Your task to perform on an android device: Clear the cart on amazon.com. Add "usb-c to usb-b" to the cart on amazon.com Image 0: 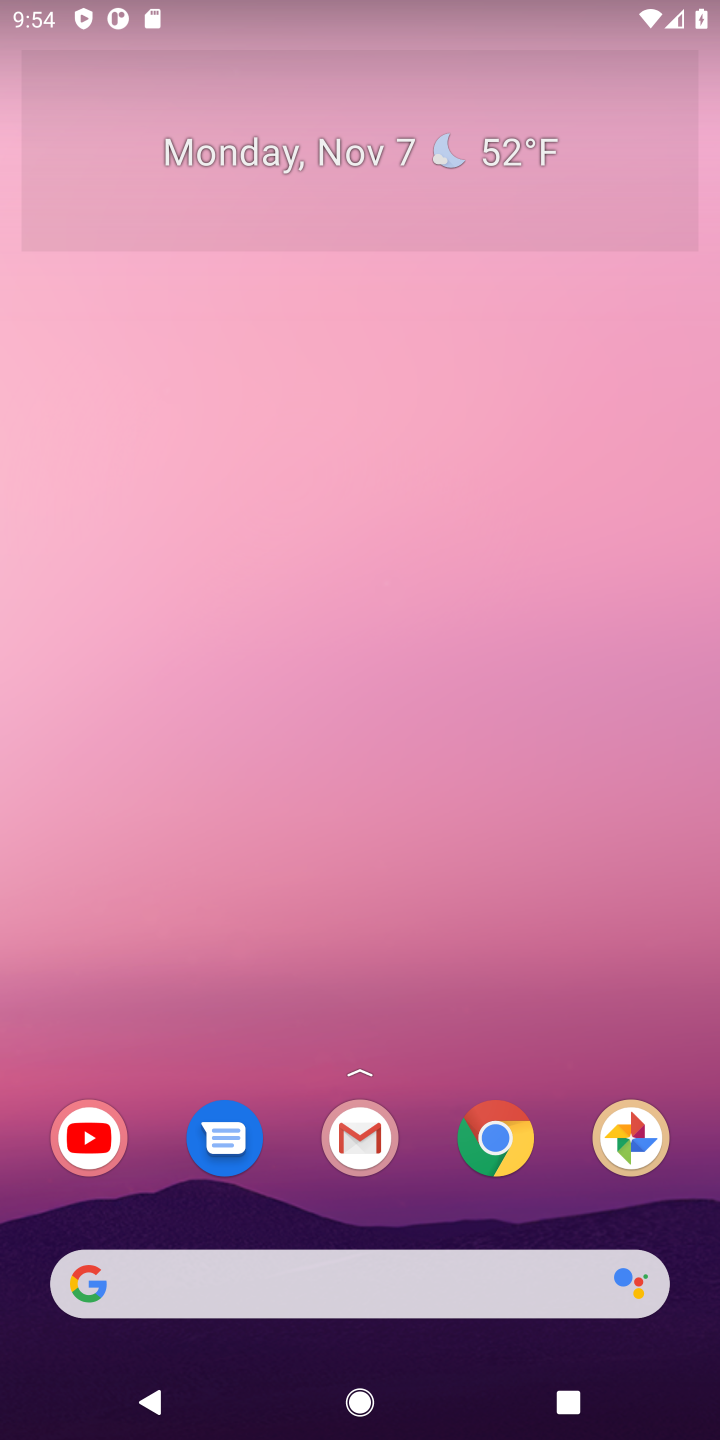
Step 0: drag from (318, 1214) to (318, 710)
Your task to perform on an android device: Clear the cart on amazon.com. Add "usb-c to usb-b" to the cart on amazon.com Image 1: 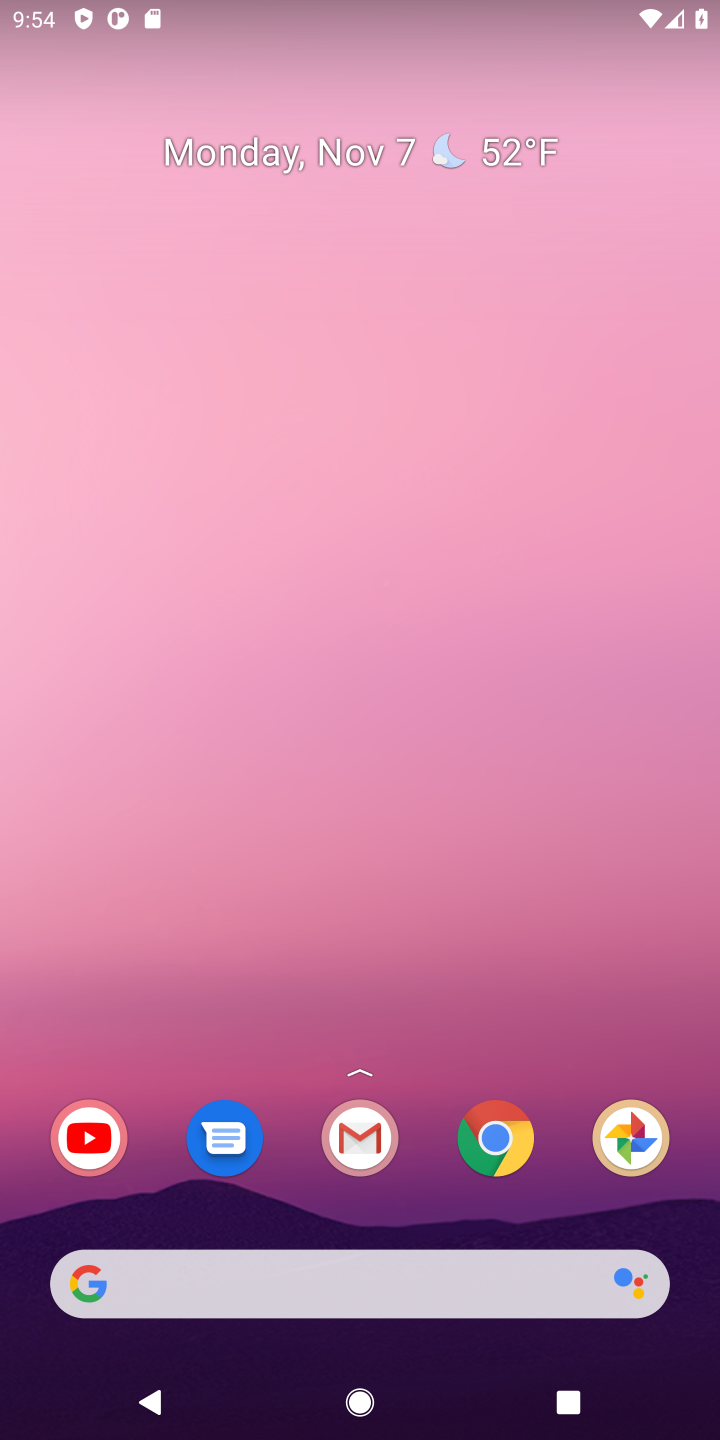
Step 1: drag from (414, 1162) to (404, 600)
Your task to perform on an android device: Clear the cart on amazon.com. Add "usb-c to usb-b" to the cart on amazon.com Image 2: 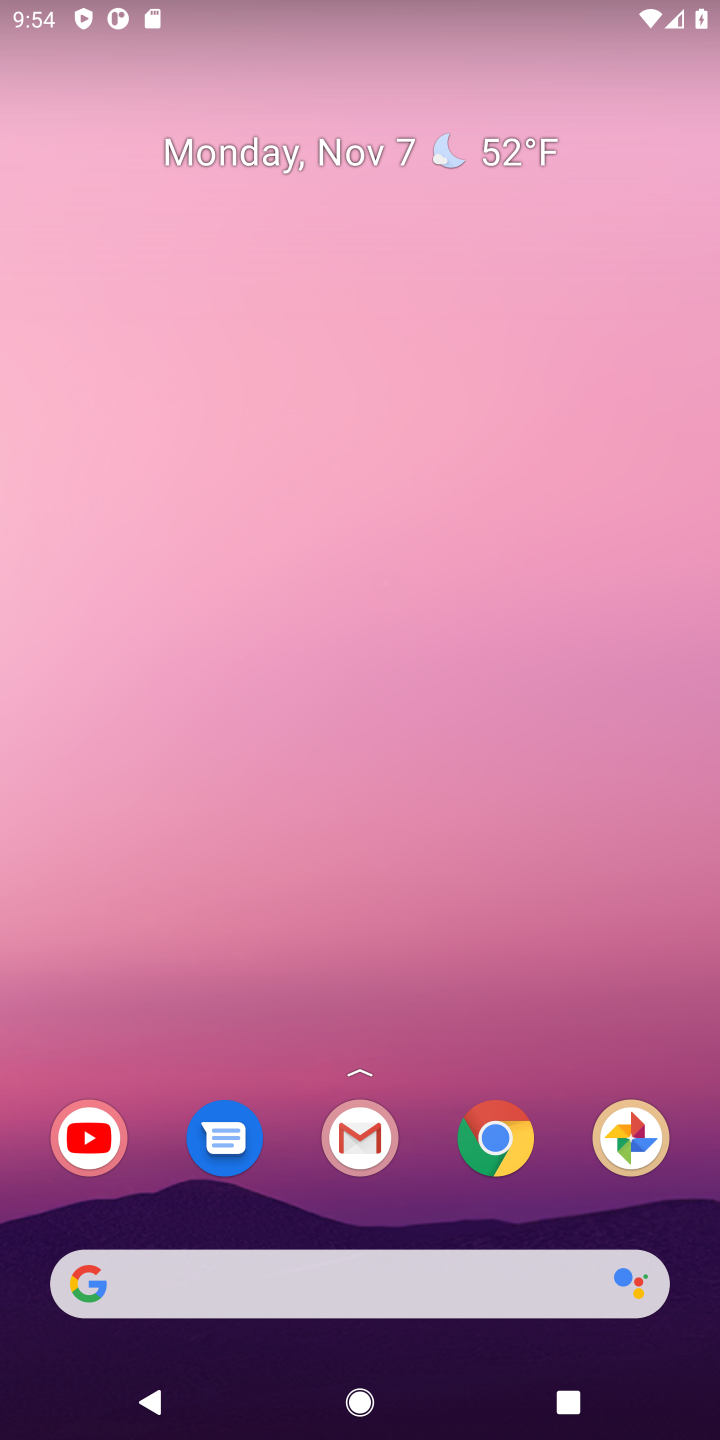
Step 2: drag from (368, 1200) to (517, 244)
Your task to perform on an android device: Clear the cart on amazon.com. Add "usb-c to usb-b" to the cart on amazon.com Image 3: 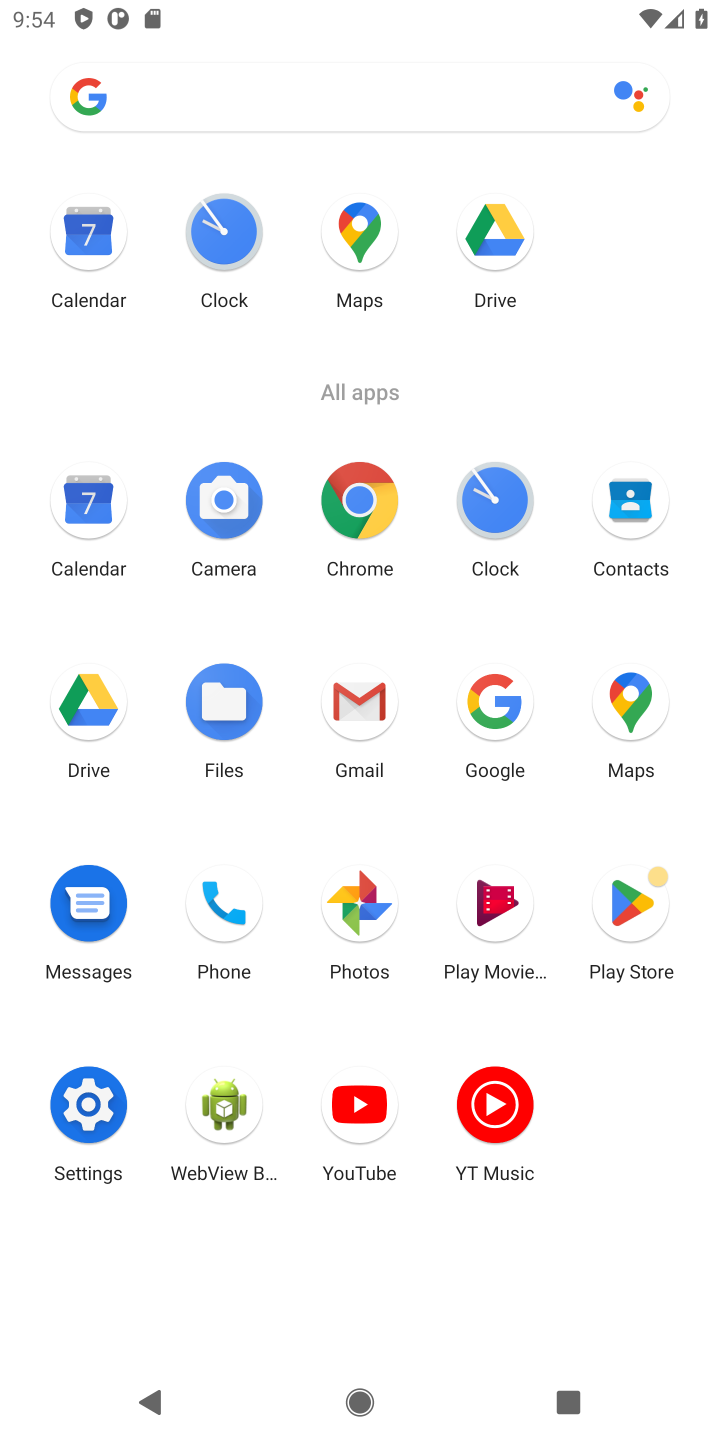
Step 3: click (500, 696)
Your task to perform on an android device: Clear the cart on amazon.com. Add "usb-c to usb-b" to the cart on amazon.com Image 4: 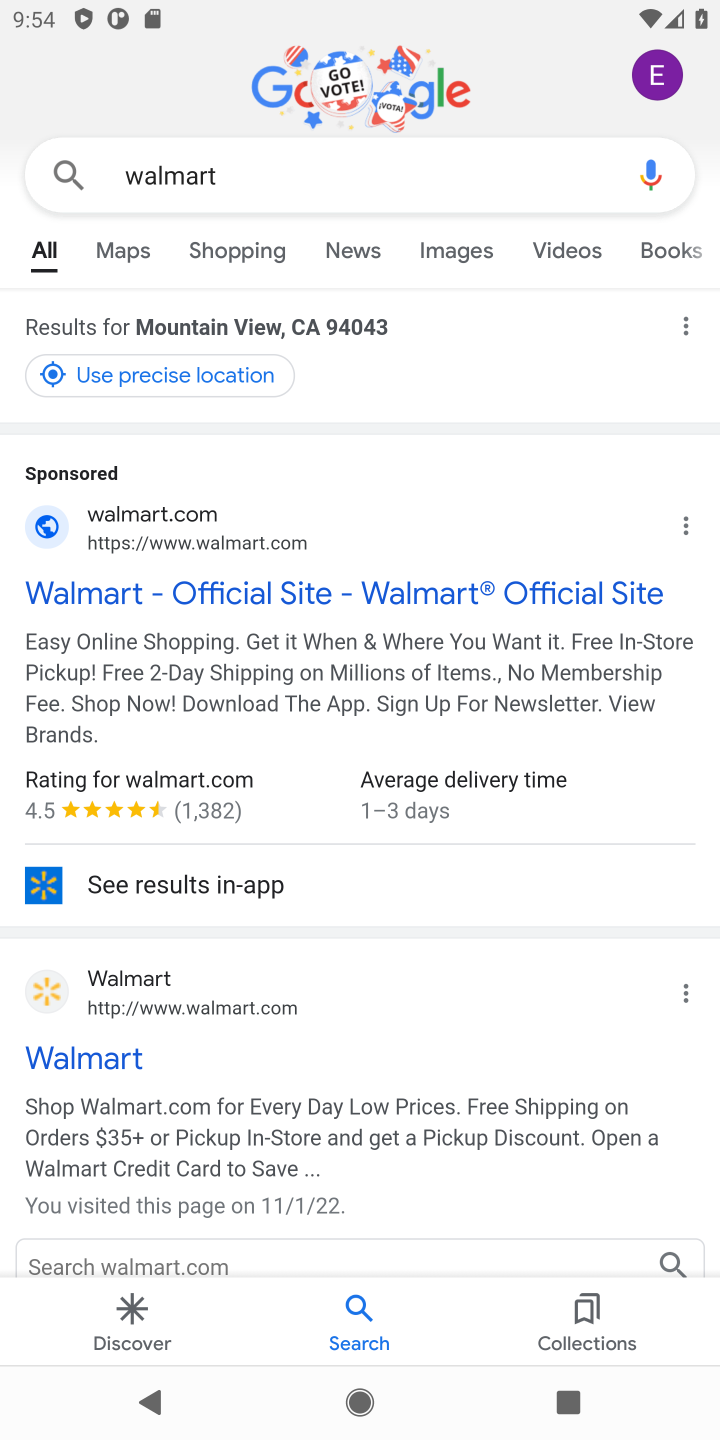
Step 4: click (428, 172)
Your task to perform on an android device: Clear the cart on amazon.com. Add "usb-c to usb-b" to the cart on amazon.com Image 5: 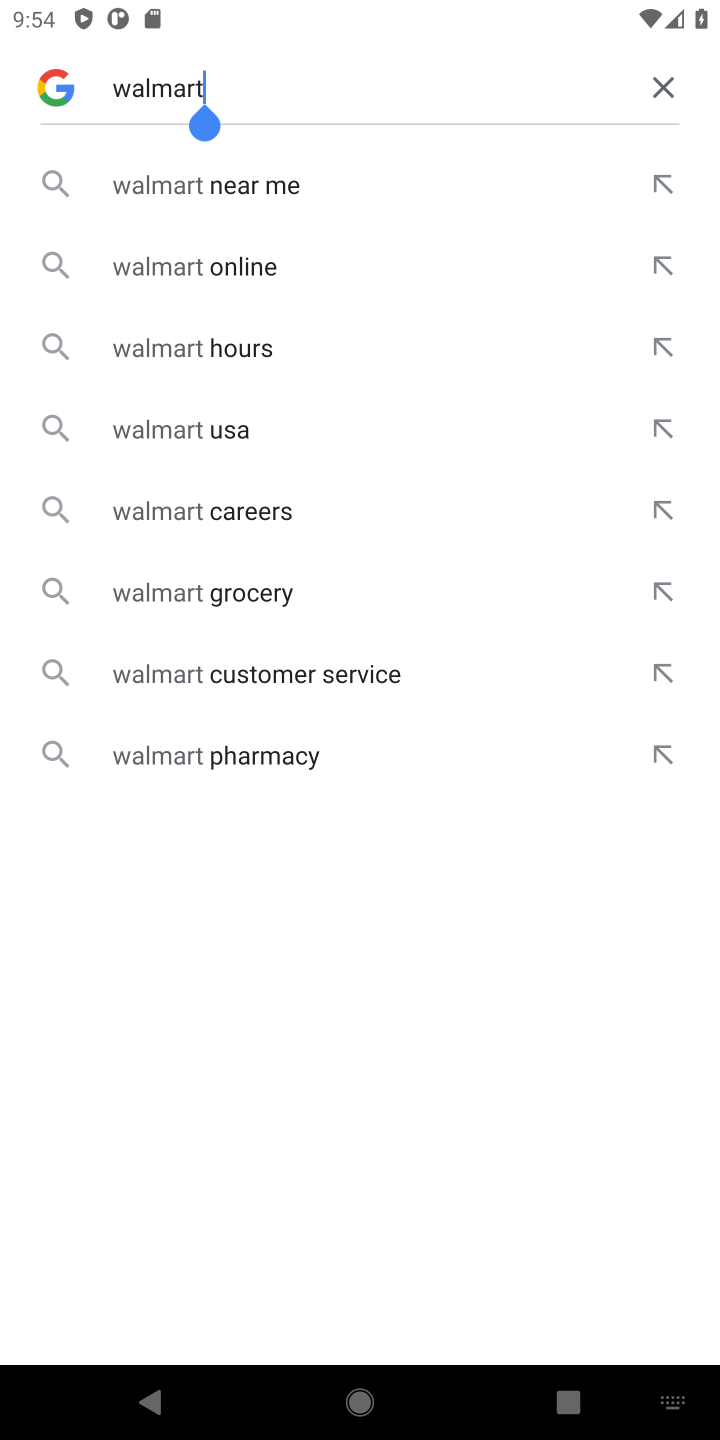
Step 5: click (676, 90)
Your task to perform on an android device: Clear the cart on amazon.com. Add "usb-c to usb-b" to the cart on amazon.com Image 6: 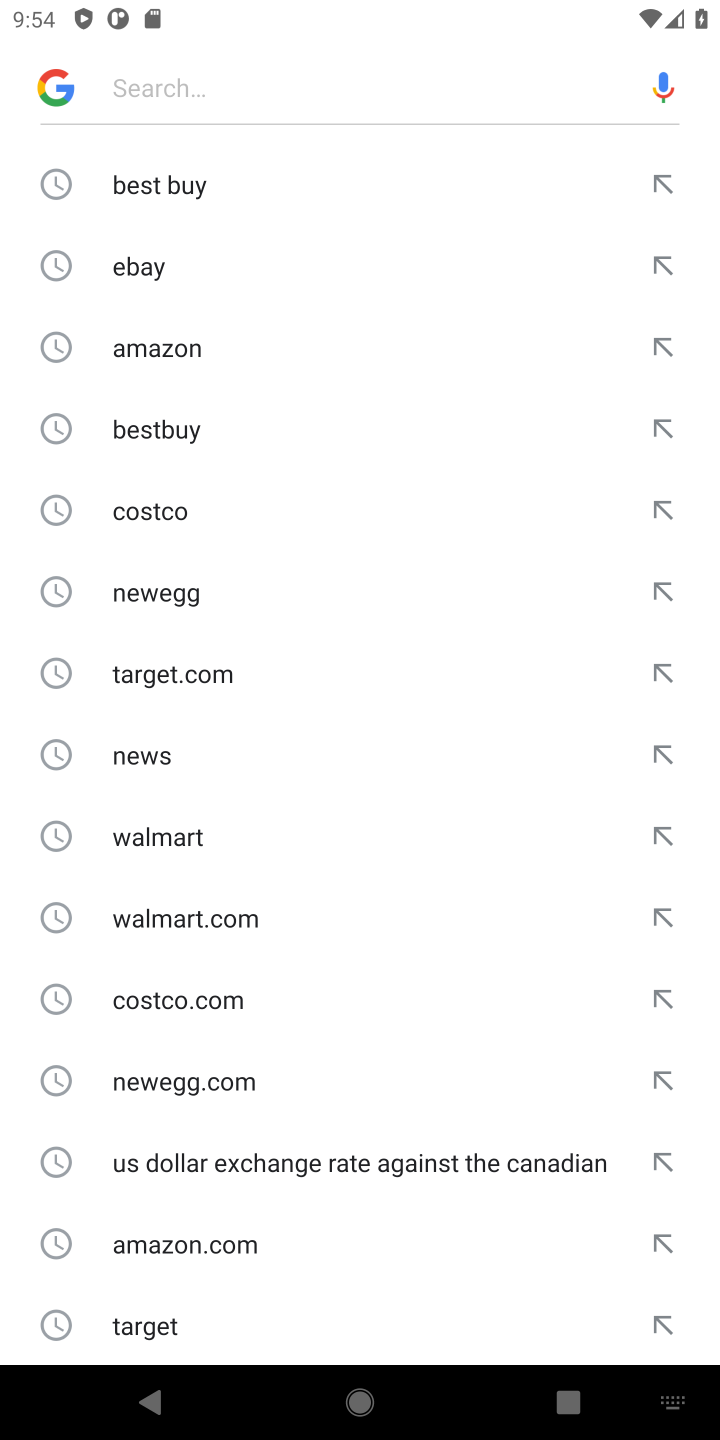
Step 6: type "amazon.com"
Your task to perform on an android device: Clear the cart on amazon.com. Add "usb-c to usb-b" to the cart on amazon.com Image 7: 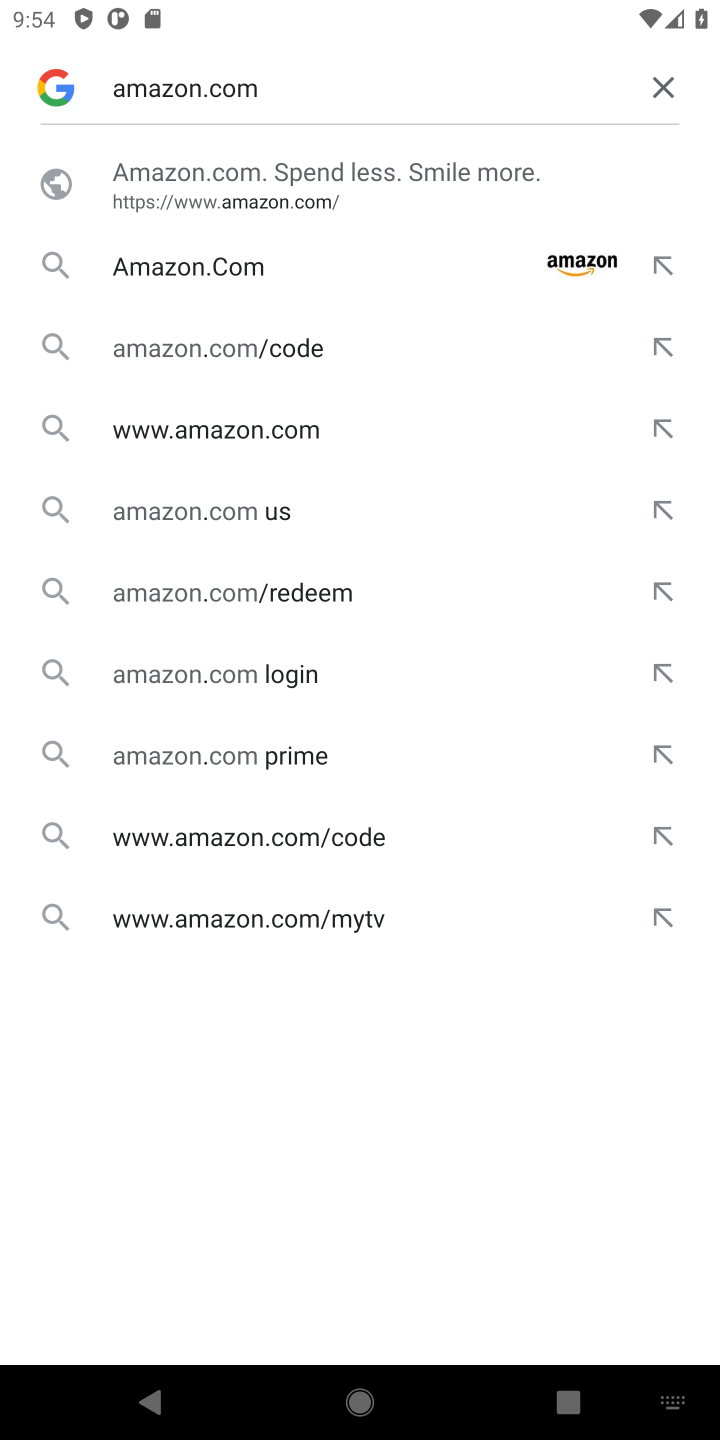
Step 7: click (378, 192)
Your task to perform on an android device: Clear the cart on amazon.com. Add "usb-c to usb-b" to the cart on amazon.com Image 8: 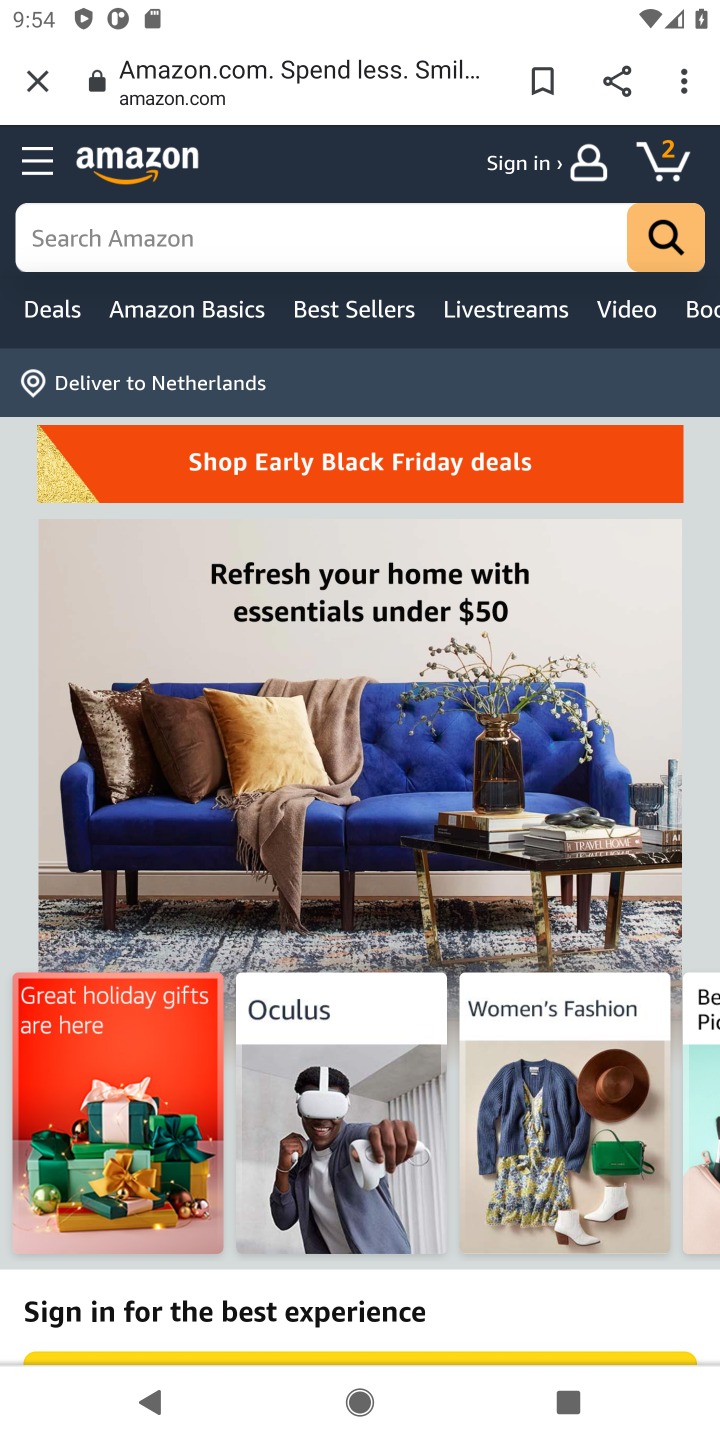
Step 8: click (390, 245)
Your task to perform on an android device: Clear the cart on amazon.com. Add "usb-c to usb-b" to the cart on amazon.com Image 9: 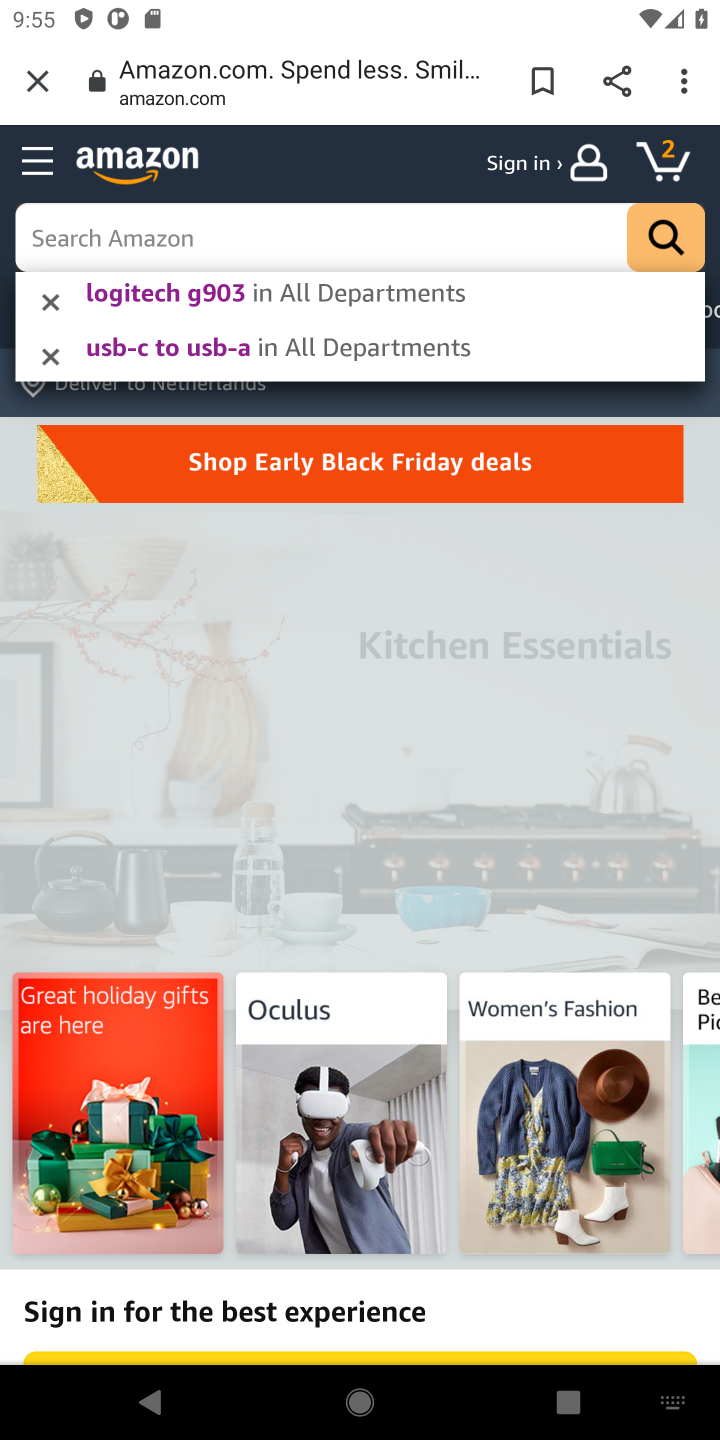
Step 9: type "usb-c to usb-b"
Your task to perform on an android device: Clear the cart on amazon.com. Add "usb-c to usb-b" to the cart on amazon.com Image 10: 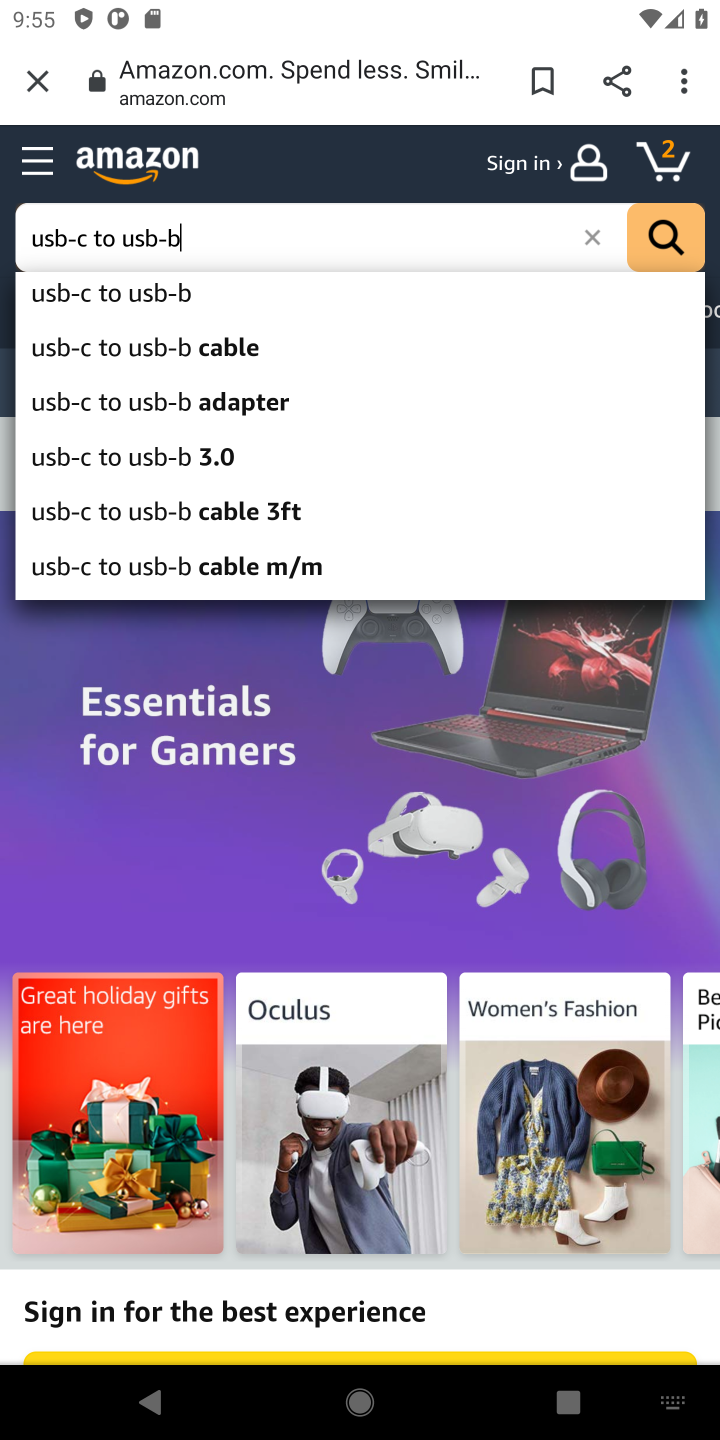
Step 10: click (200, 305)
Your task to perform on an android device: Clear the cart on amazon.com. Add "usb-c to usb-b" to the cart on amazon.com Image 11: 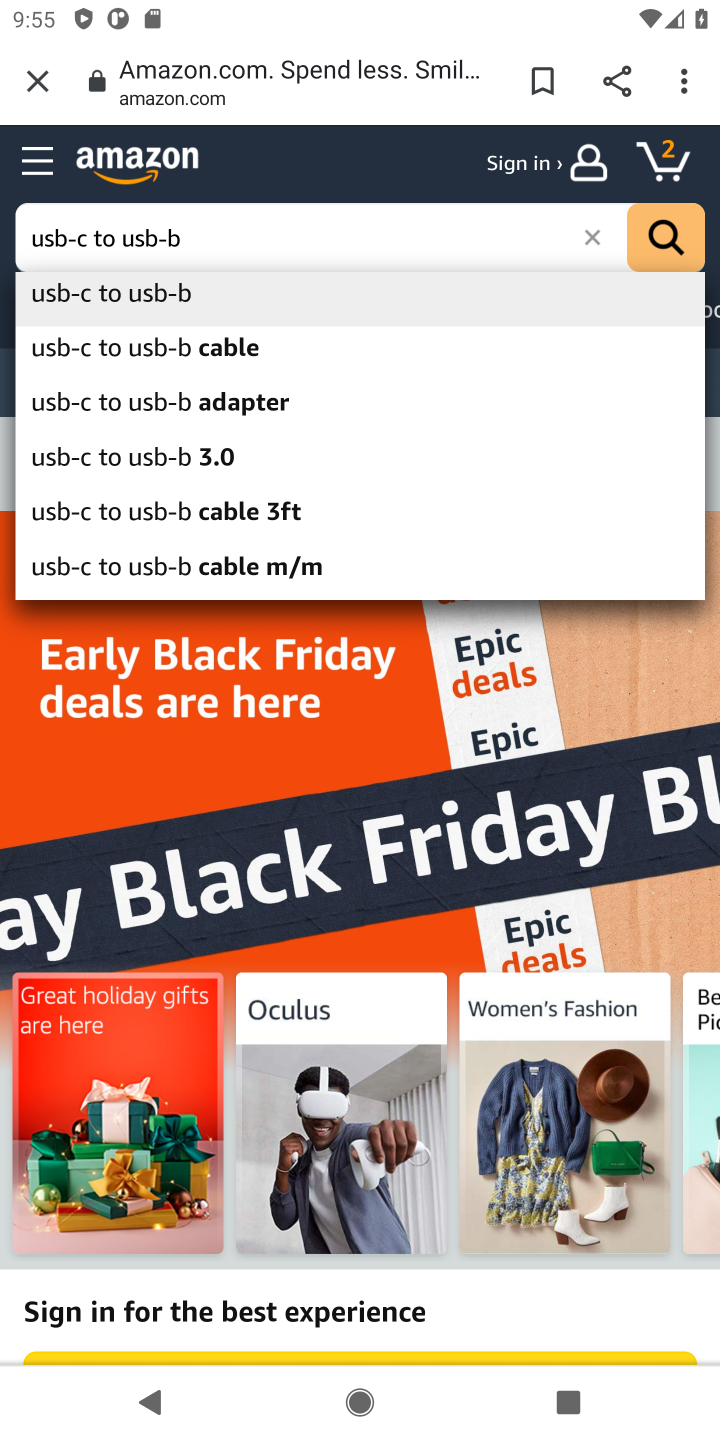
Step 11: click (200, 305)
Your task to perform on an android device: Clear the cart on amazon.com. Add "usb-c to usb-b" to the cart on amazon.com Image 12: 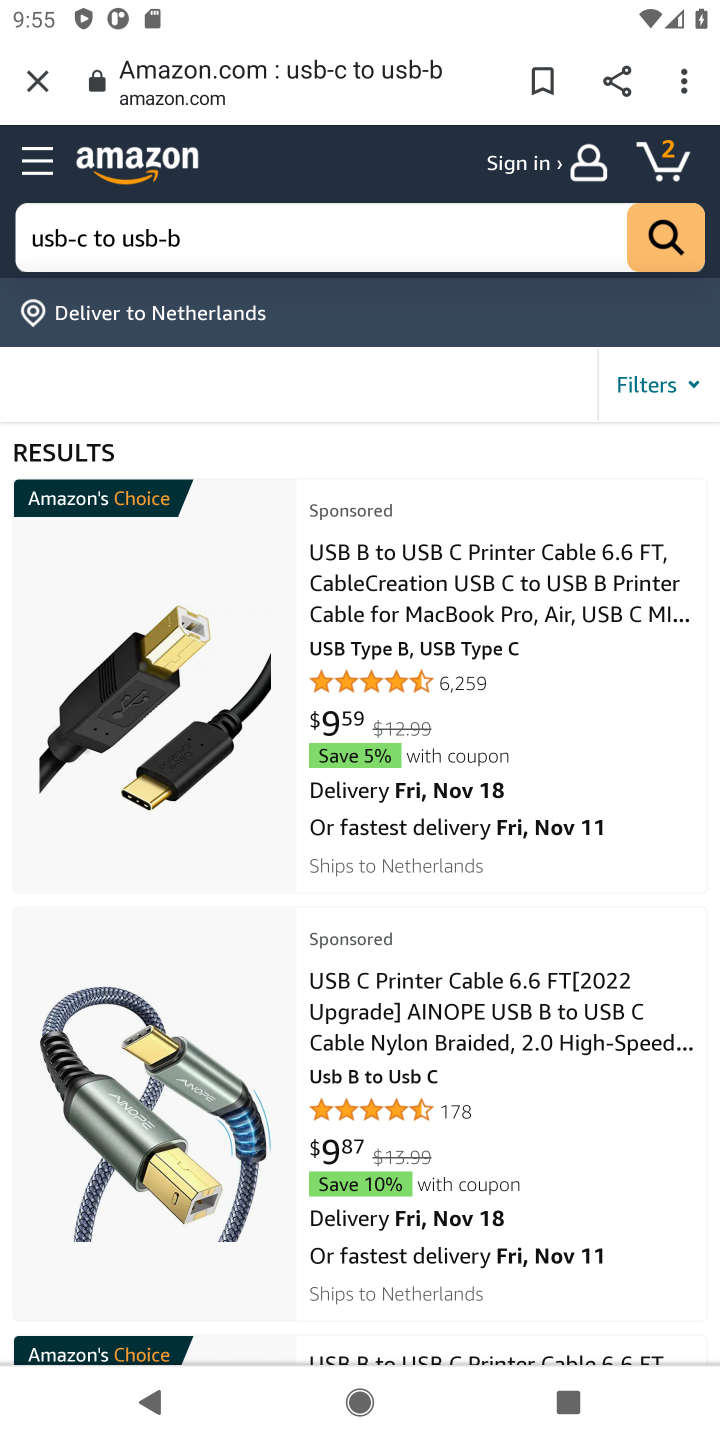
Step 12: click (500, 597)
Your task to perform on an android device: Clear the cart on amazon.com. Add "usb-c to usb-b" to the cart on amazon.com Image 13: 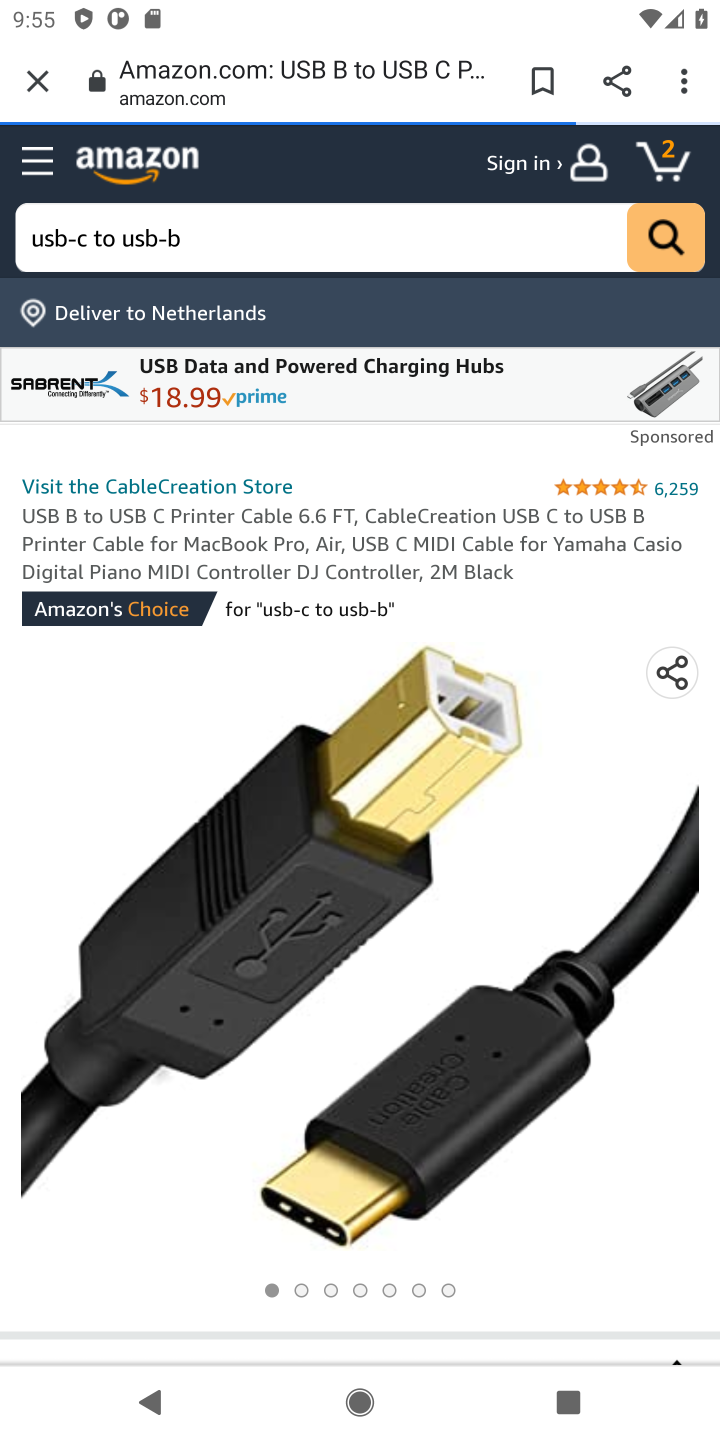
Step 13: drag from (457, 1129) to (489, 322)
Your task to perform on an android device: Clear the cart on amazon.com. Add "usb-c to usb-b" to the cart on amazon.com Image 14: 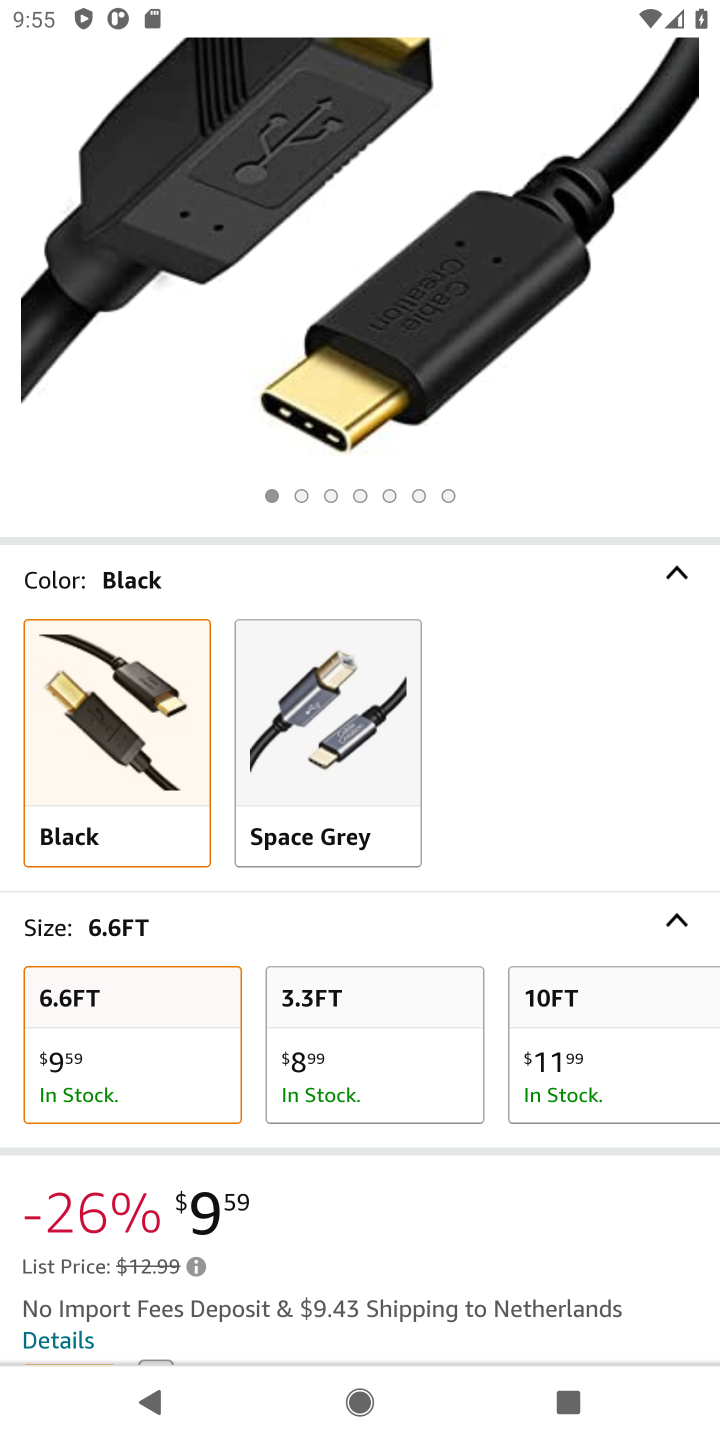
Step 14: drag from (365, 1195) to (350, 533)
Your task to perform on an android device: Clear the cart on amazon.com. Add "usb-c to usb-b" to the cart on amazon.com Image 15: 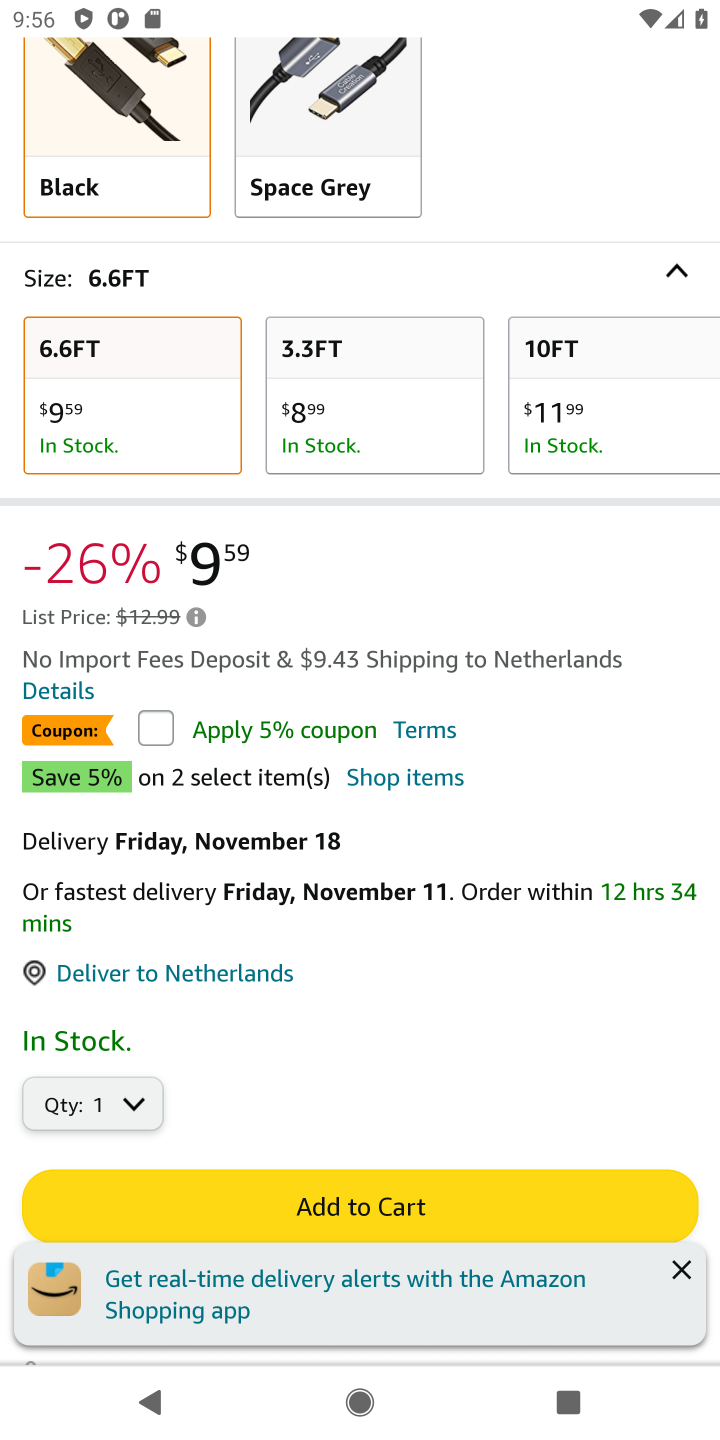
Step 15: click (346, 1202)
Your task to perform on an android device: Clear the cart on amazon.com. Add "usb-c to usb-b" to the cart on amazon.com Image 16: 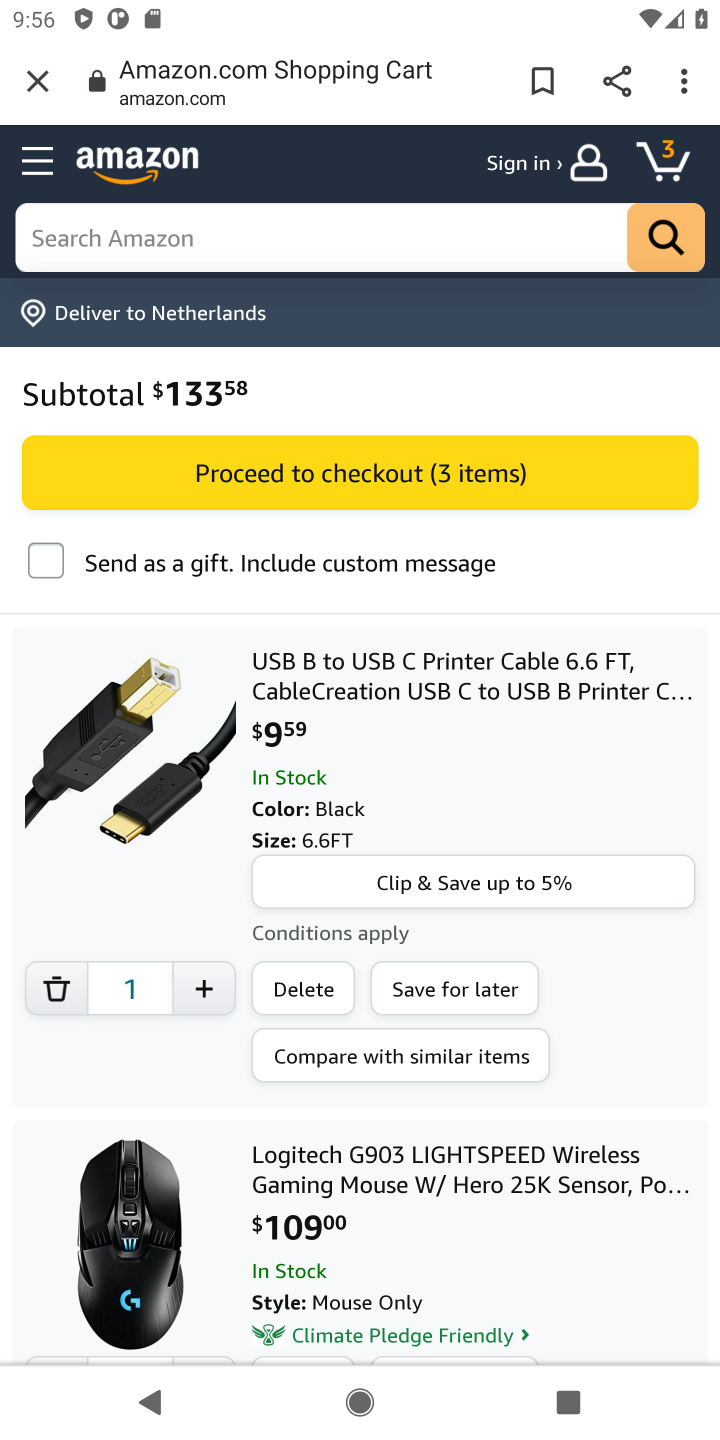
Step 16: task complete